Your task to perform on an android device: Open privacy settings Image 0: 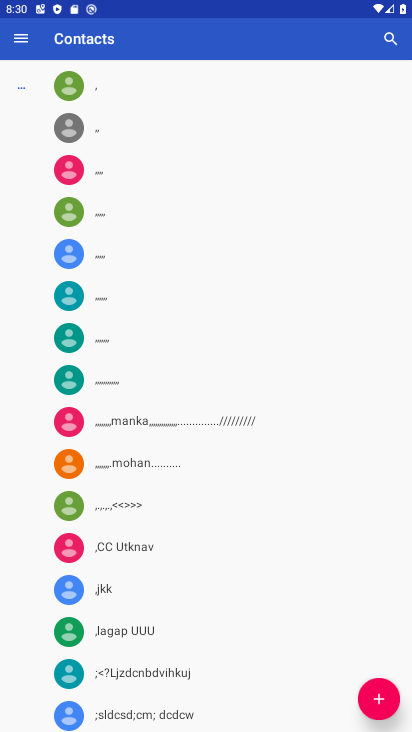
Step 0: press home button
Your task to perform on an android device: Open privacy settings Image 1: 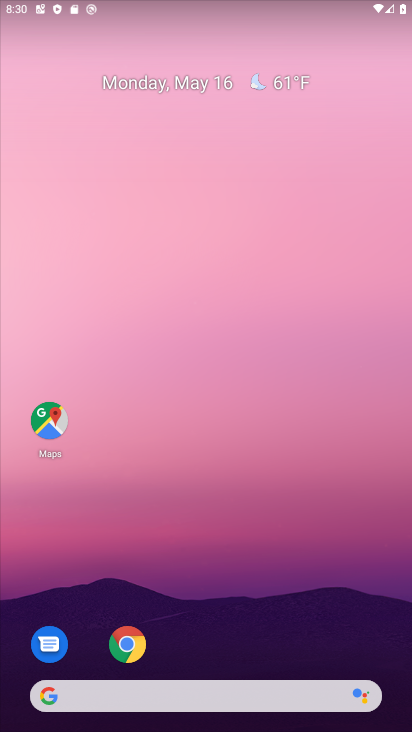
Step 1: drag from (213, 640) to (262, 98)
Your task to perform on an android device: Open privacy settings Image 2: 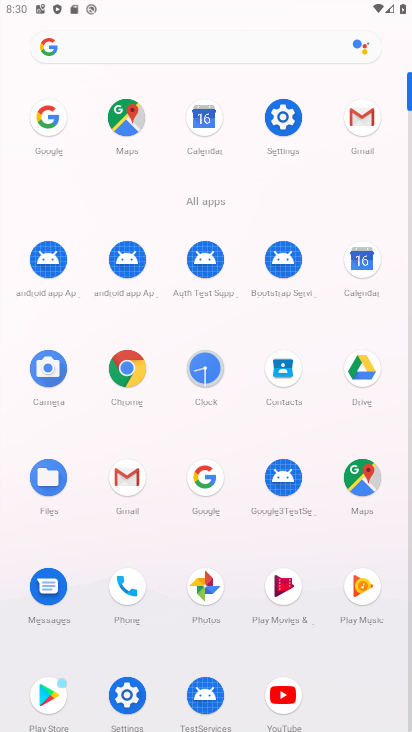
Step 2: click (288, 110)
Your task to perform on an android device: Open privacy settings Image 3: 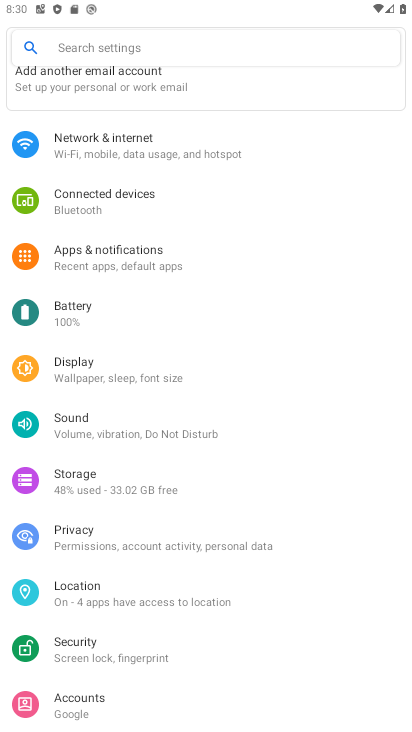
Step 3: click (63, 532)
Your task to perform on an android device: Open privacy settings Image 4: 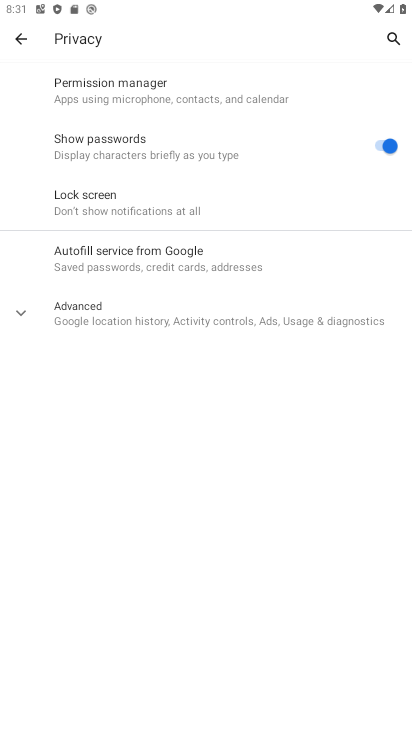
Step 4: task complete